Your task to perform on an android device: Clear all items from cart on costco. Image 0: 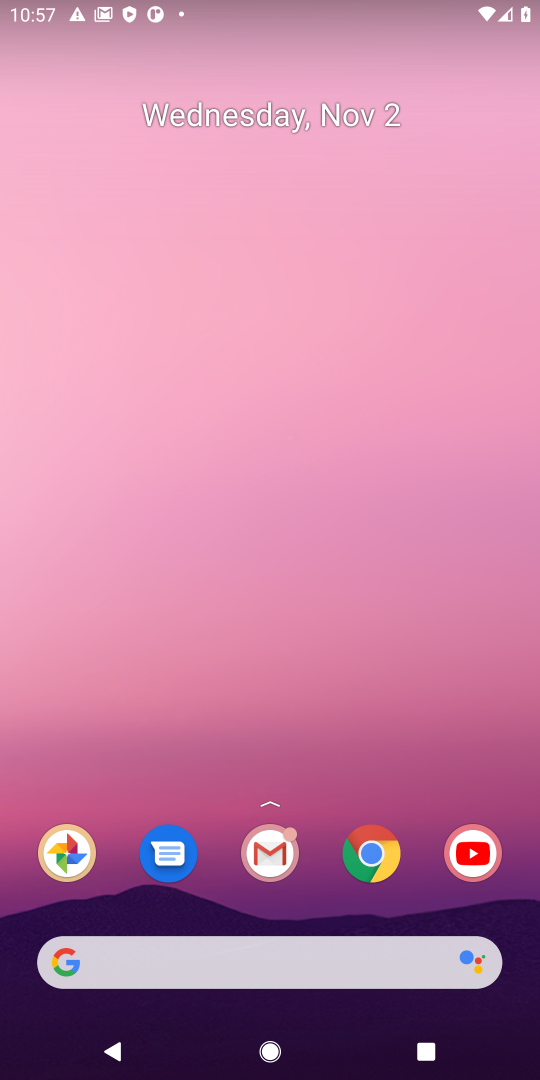
Step 0: click (361, 846)
Your task to perform on an android device: Clear all items from cart on costco. Image 1: 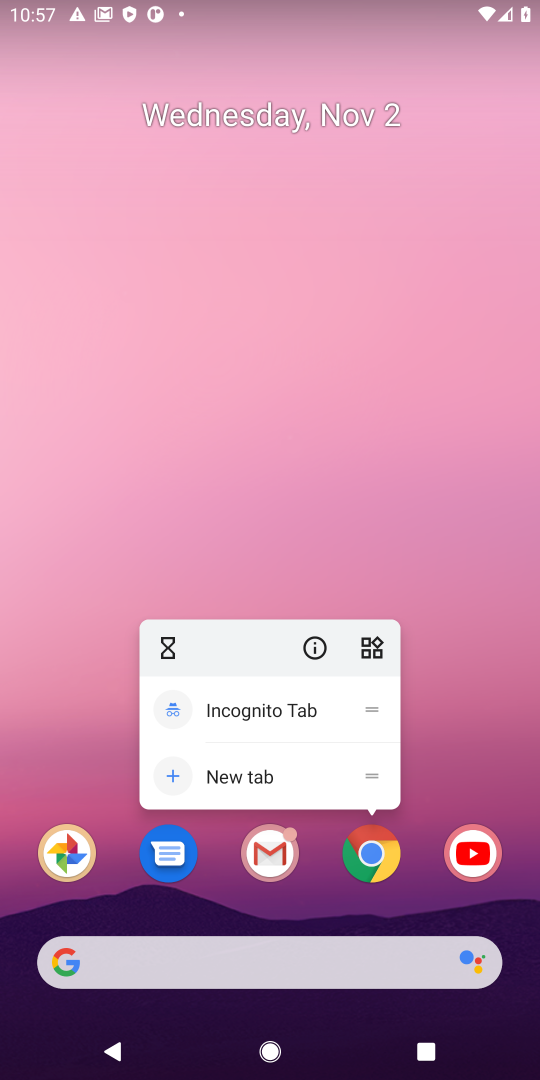
Step 1: click (370, 845)
Your task to perform on an android device: Clear all items from cart on costco. Image 2: 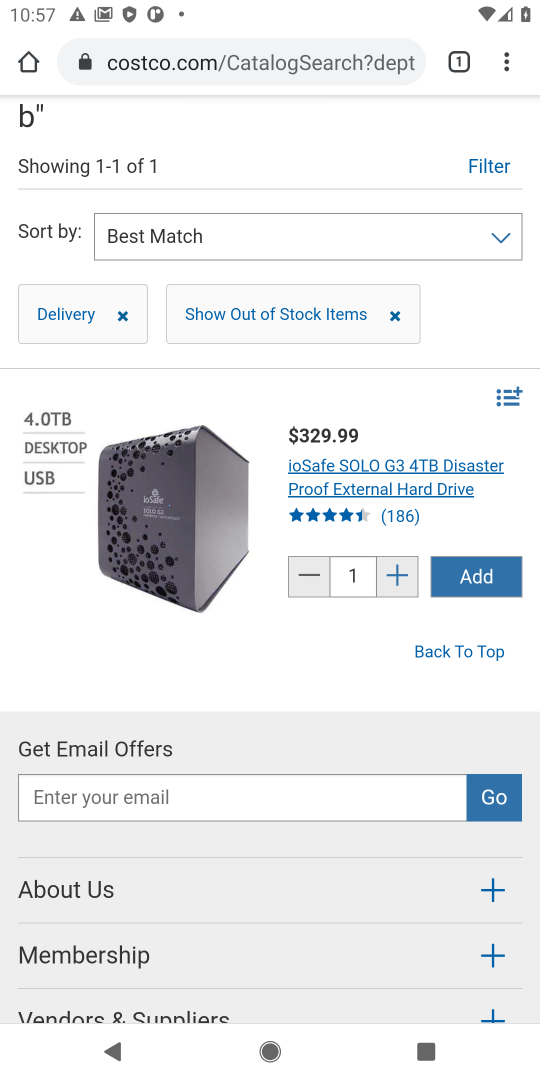
Step 2: drag from (292, 162) to (309, 762)
Your task to perform on an android device: Clear all items from cart on costco. Image 3: 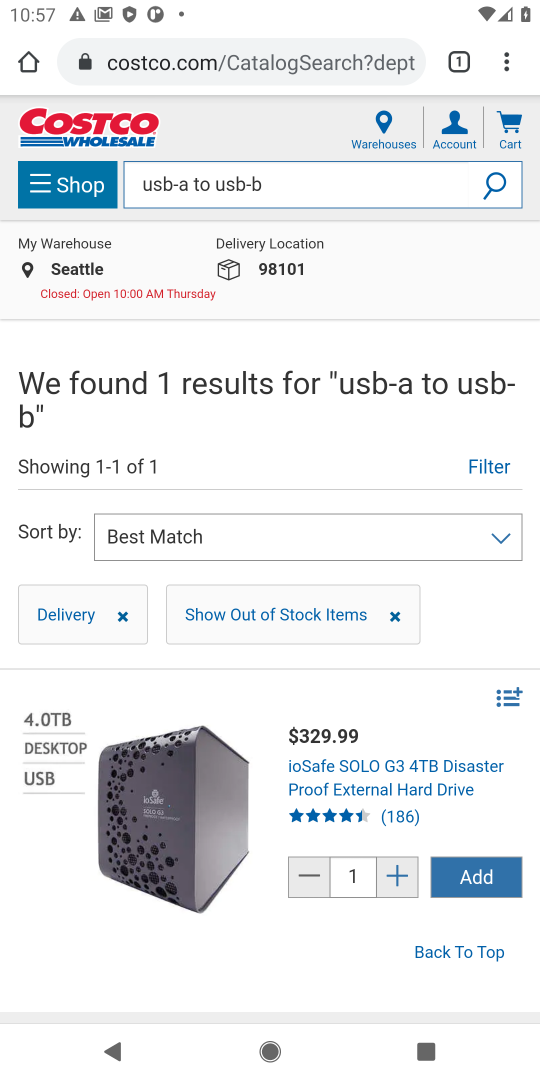
Step 3: click (509, 119)
Your task to perform on an android device: Clear all items from cart on costco. Image 4: 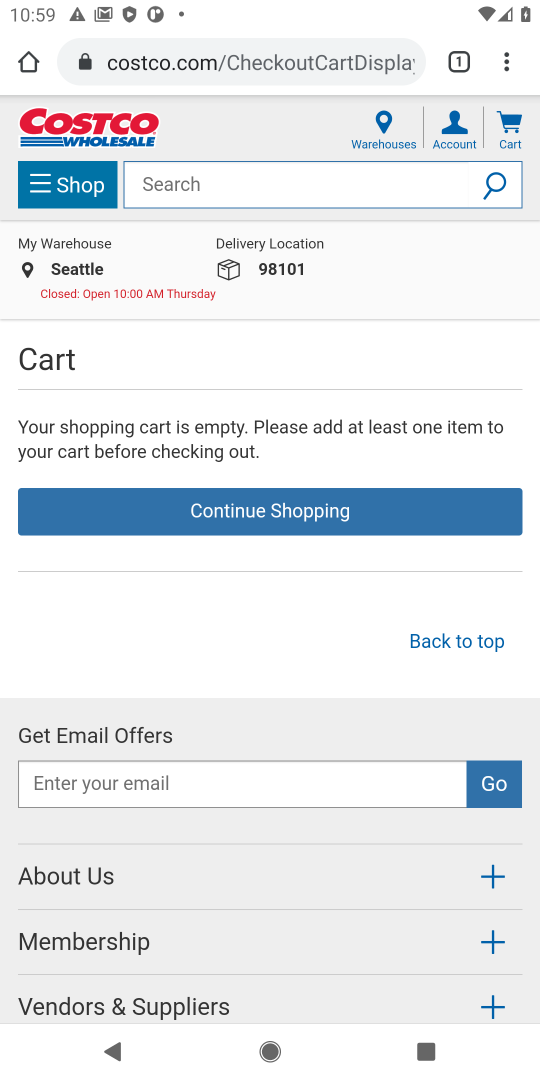
Step 4: task complete